Your task to perform on an android device: turn on notifications settings in the gmail app Image 0: 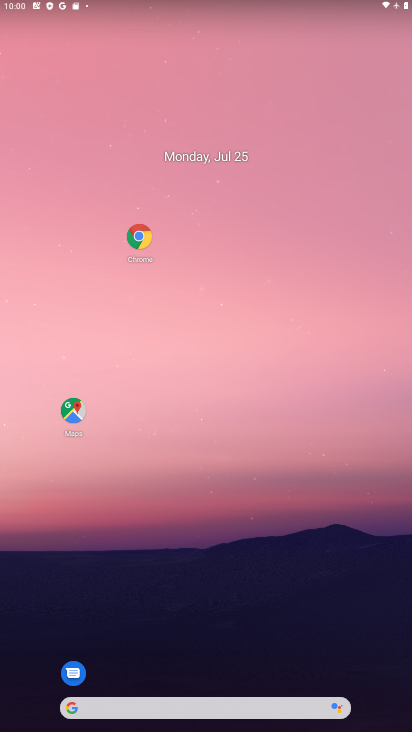
Step 0: drag from (193, 662) to (187, 203)
Your task to perform on an android device: turn on notifications settings in the gmail app Image 1: 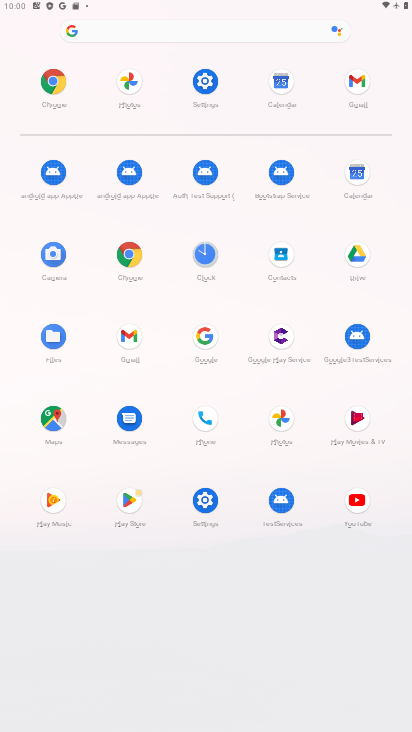
Step 1: click (359, 104)
Your task to perform on an android device: turn on notifications settings in the gmail app Image 2: 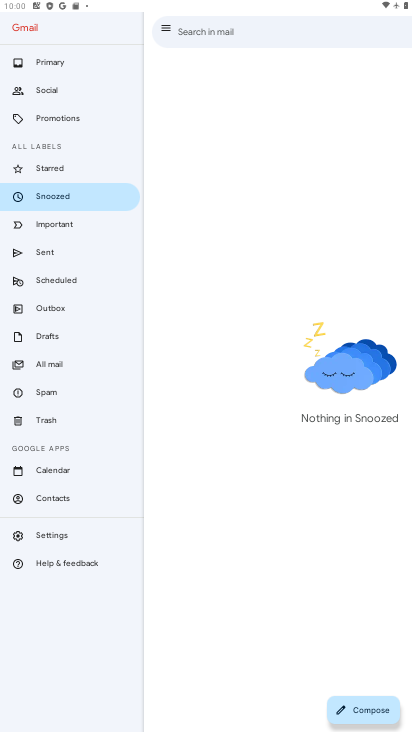
Step 2: task complete